Your task to perform on an android device: open a new tab in the chrome app Image 0: 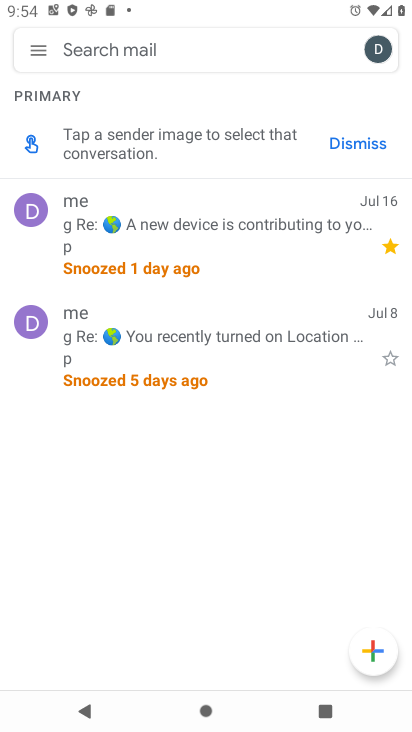
Step 0: press home button
Your task to perform on an android device: open a new tab in the chrome app Image 1: 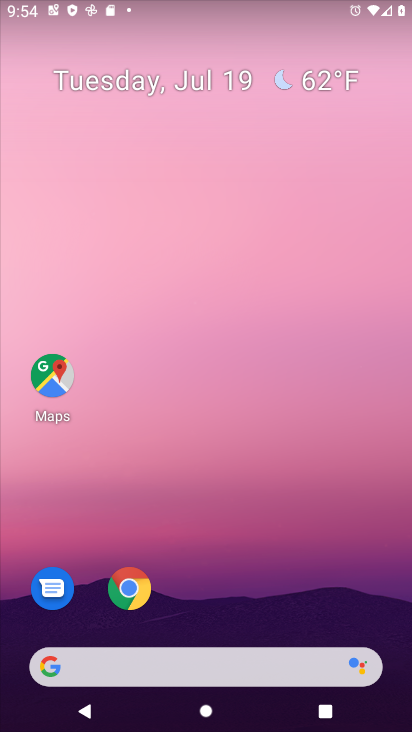
Step 1: drag from (276, 600) to (171, 59)
Your task to perform on an android device: open a new tab in the chrome app Image 2: 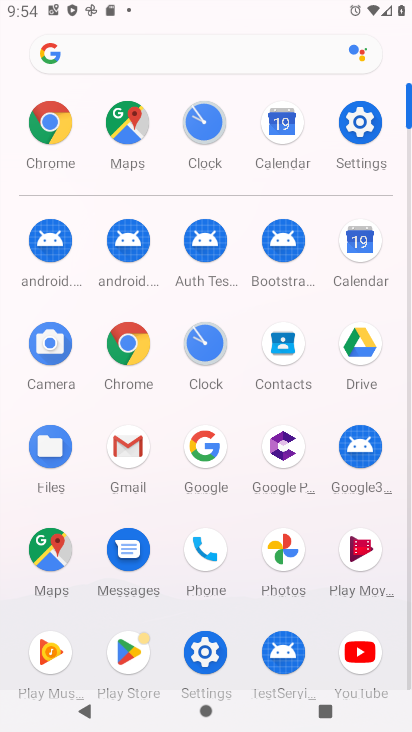
Step 2: click (54, 128)
Your task to perform on an android device: open a new tab in the chrome app Image 3: 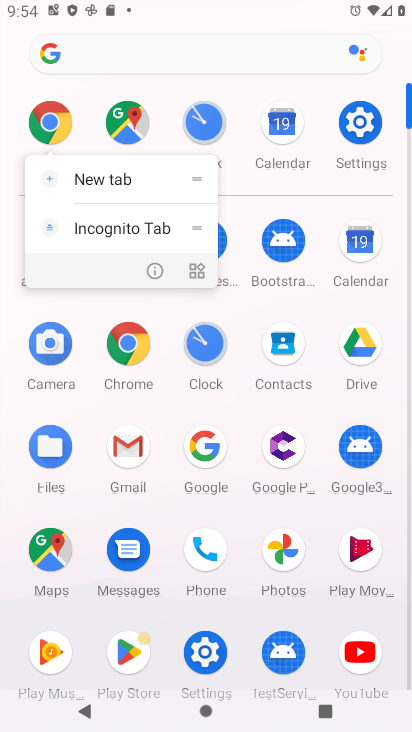
Step 3: click (54, 121)
Your task to perform on an android device: open a new tab in the chrome app Image 4: 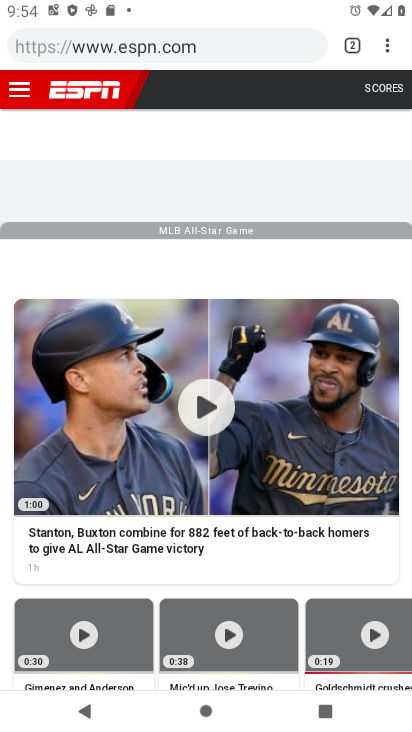
Step 4: task complete